Your task to perform on an android device: turn off wifi Image 0: 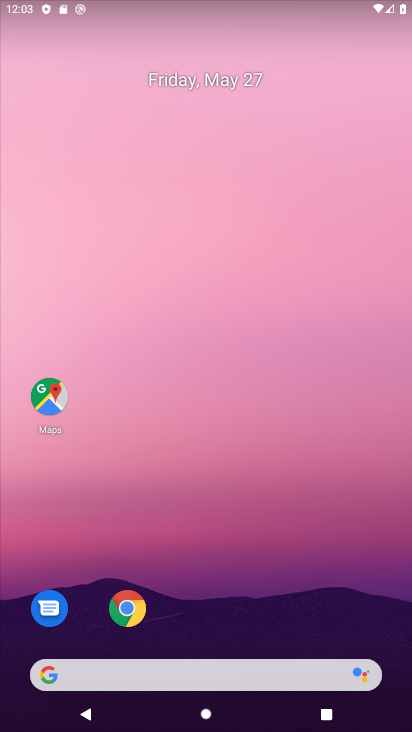
Step 0: drag from (183, 646) to (366, 113)
Your task to perform on an android device: turn off wifi Image 1: 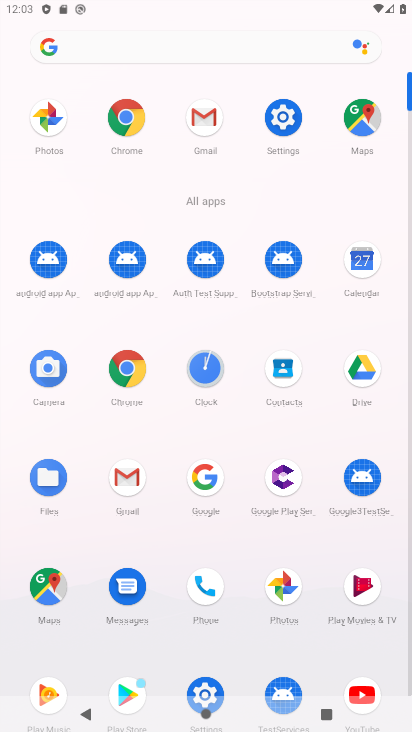
Step 1: click (281, 117)
Your task to perform on an android device: turn off wifi Image 2: 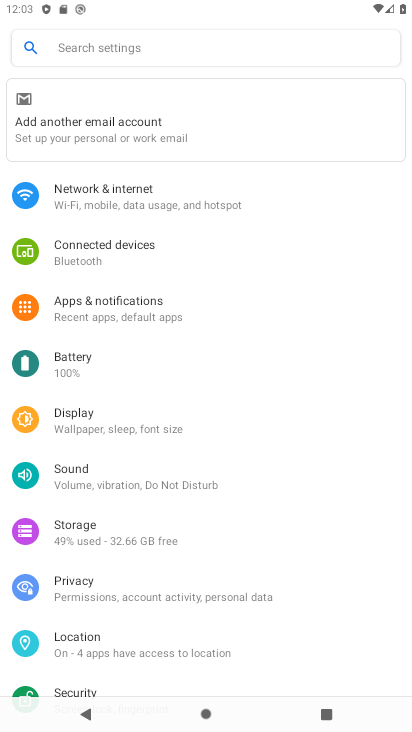
Step 2: click (134, 198)
Your task to perform on an android device: turn off wifi Image 3: 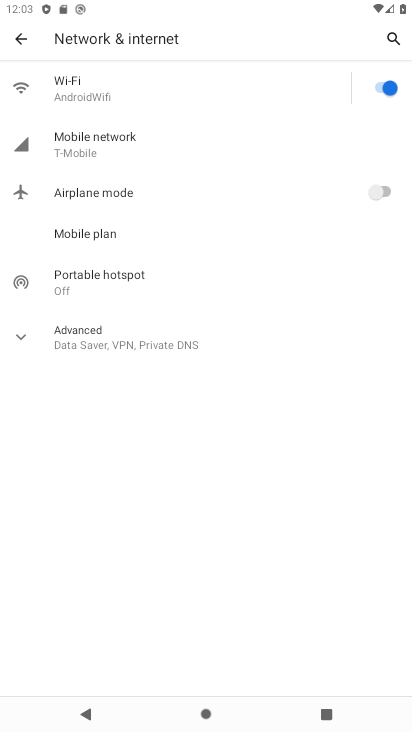
Step 3: click (385, 81)
Your task to perform on an android device: turn off wifi Image 4: 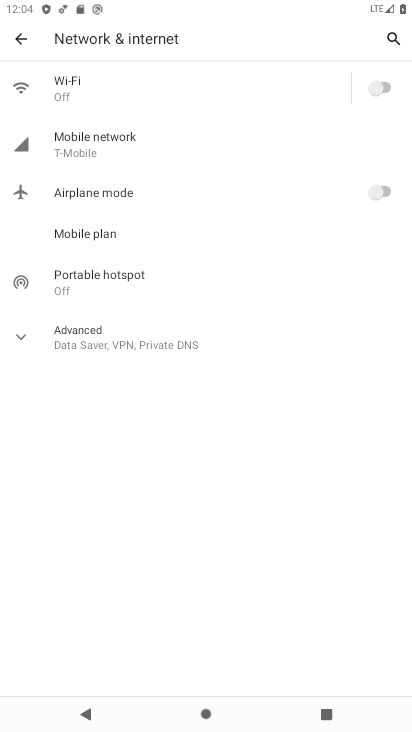
Step 4: task complete